Your task to perform on an android device: change the clock display to analog Image 0: 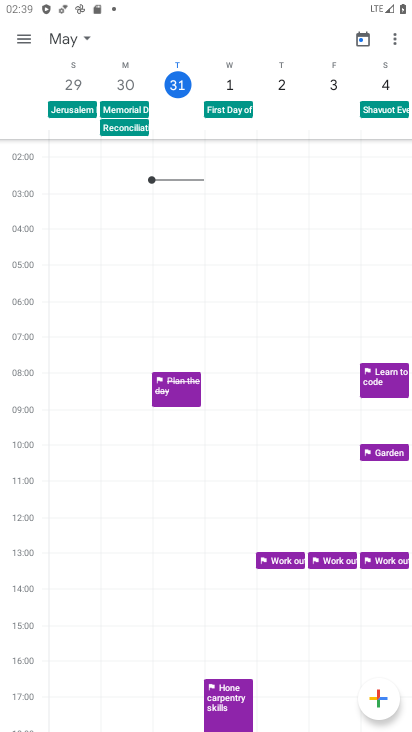
Step 0: press home button
Your task to perform on an android device: change the clock display to analog Image 1: 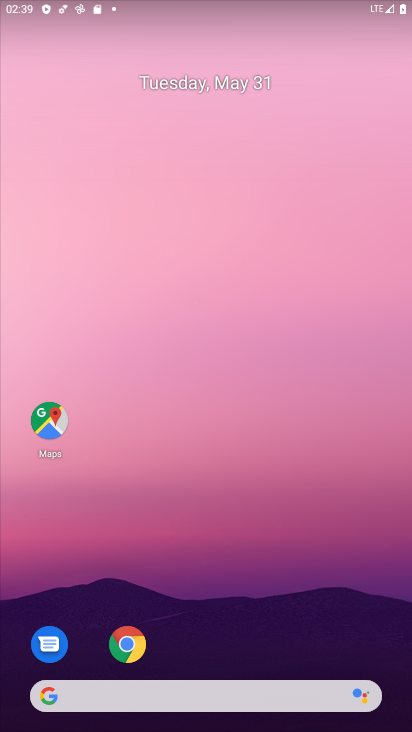
Step 1: drag from (271, 595) to (237, 140)
Your task to perform on an android device: change the clock display to analog Image 2: 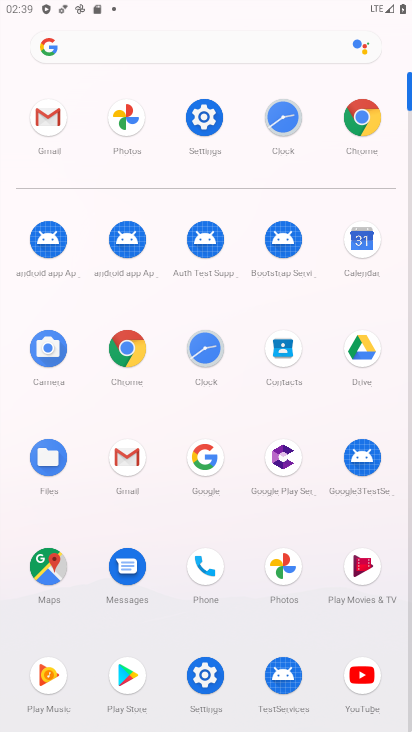
Step 2: click (200, 113)
Your task to perform on an android device: change the clock display to analog Image 3: 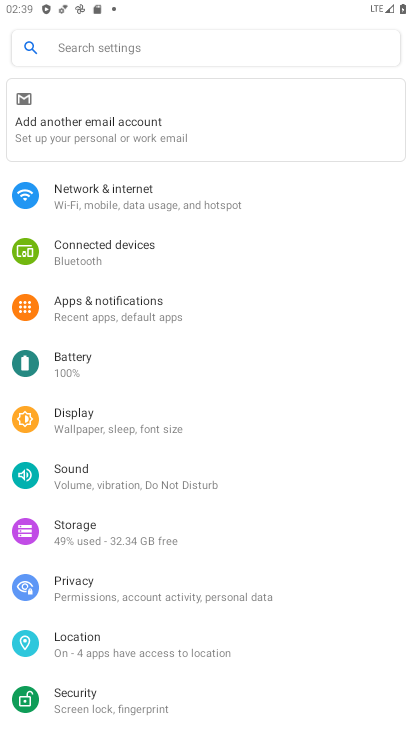
Step 3: press home button
Your task to perform on an android device: change the clock display to analog Image 4: 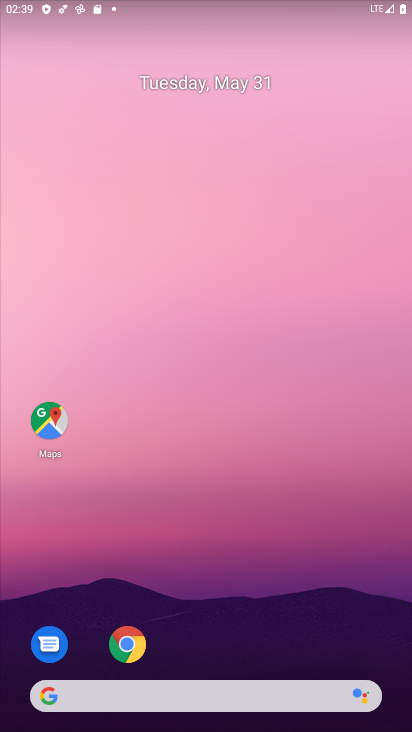
Step 4: drag from (270, 609) to (244, 168)
Your task to perform on an android device: change the clock display to analog Image 5: 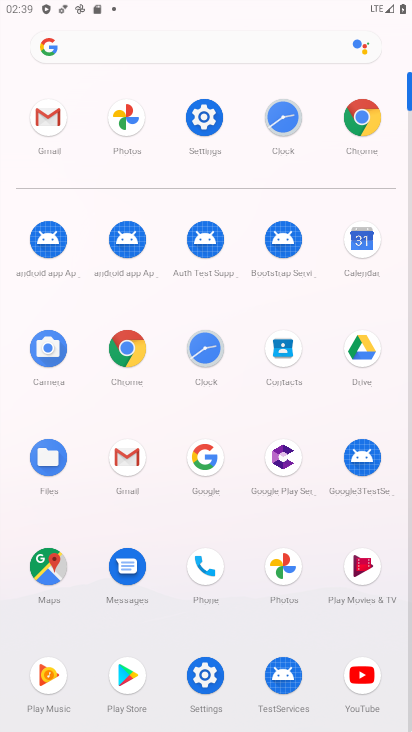
Step 5: click (205, 341)
Your task to perform on an android device: change the clock display to analog Image 6: 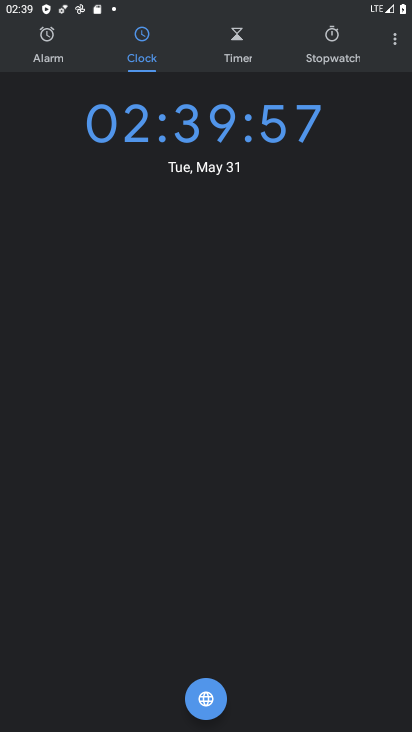
Step 6: drag from (396, 38) to (308, 81)
Your task to perform on an android device: change the clock display to analog Image 7: 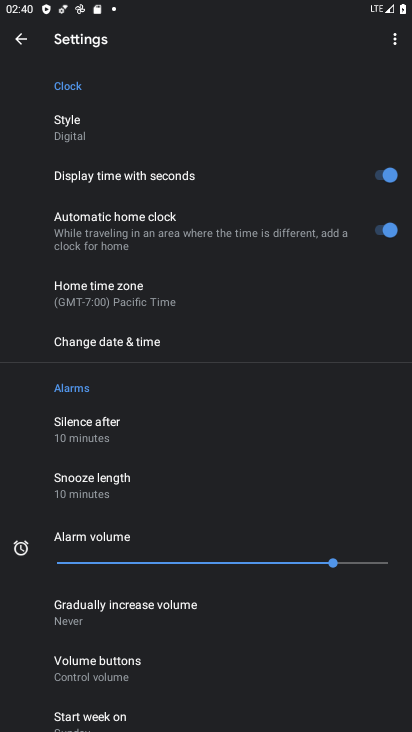
Step 7: click (73, 128)
Your task to perform on an android device: change the clock display to analog Image 8: 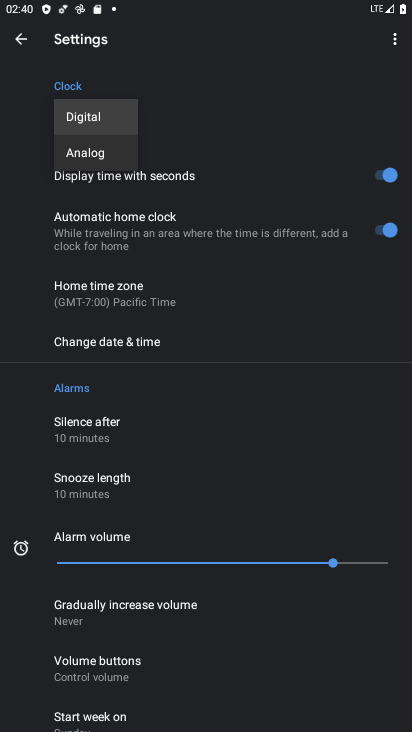
Step 8: task complete